Your task to perform on an android device: turn on wifi Image 0: 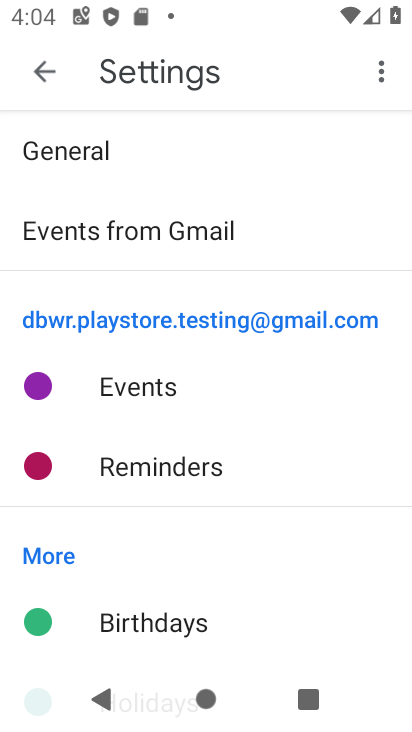
Step 0: drag from (248, 8) to (264, 313)
Your task to perform on an android device: turn on wifi Image 1: 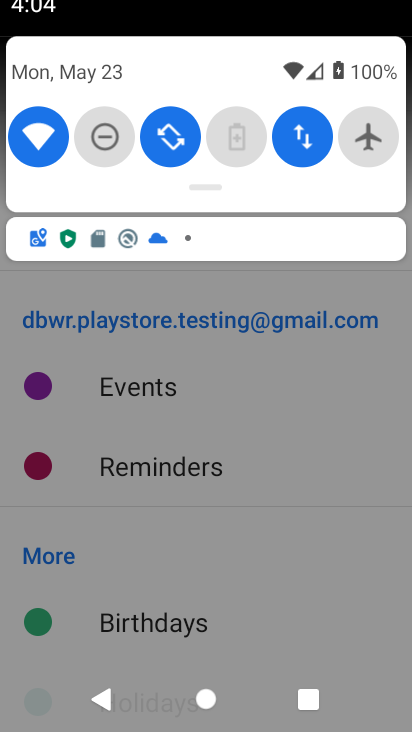
Step 1: task complete